Your task to perform on an android device: turn on the 24-hour format for clock Image 0: 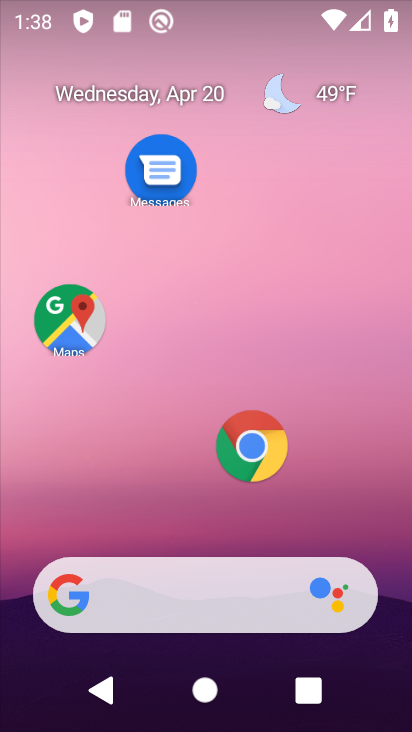
Step 0: drag from (190, 539) to (211, 133)
Your task to perform on an android device: turn on the 24-hour format for clock Image 1: 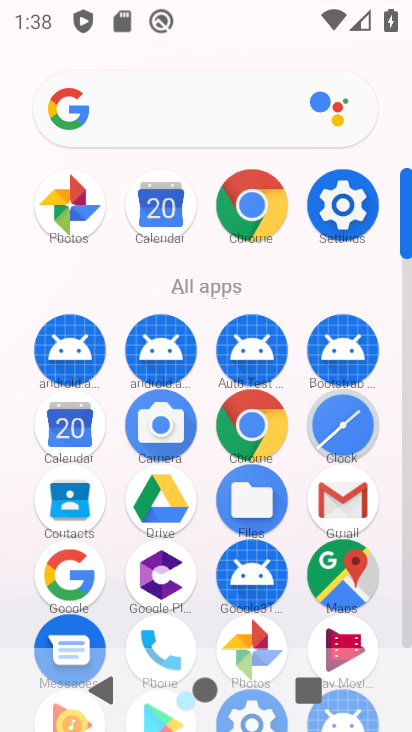
Step 1: click (340, 418)
Your task to perform on an android device: turn on the 24-hour format for clock Image 2: 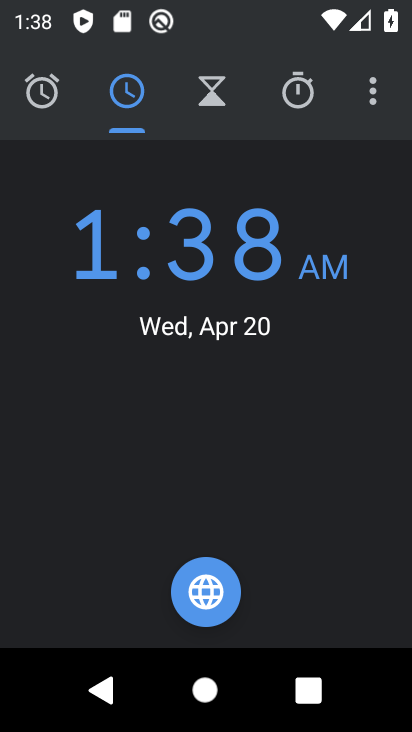
Step 2: click (369, 95)
Your task to perform on an android device: turn on the 24-hour format for clock Image 3: 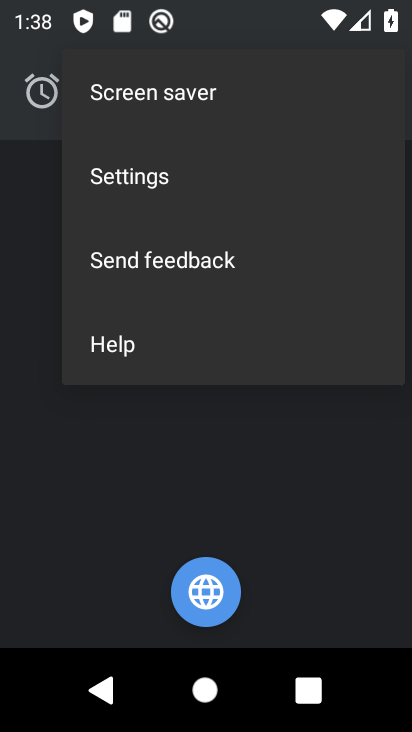
Step 3: click (189, 179)
Your task to perform on an android device: turn on the 24-hour format for clock Image 4: 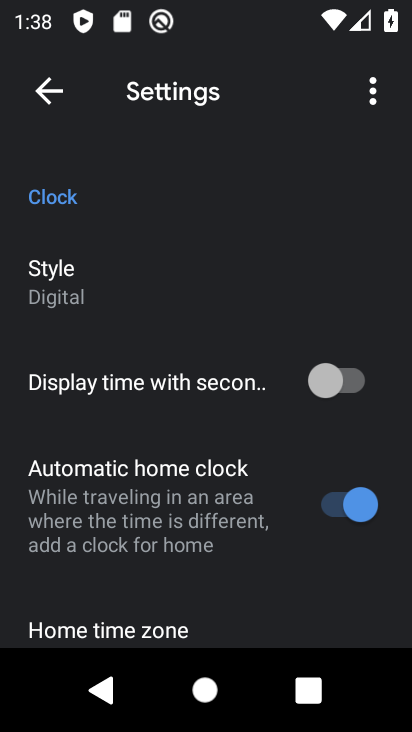
Step 4: drag from (182, 509) to (194, 170)
Your task to perform on an android device: turn on the 24-hour format for clock Image 5: 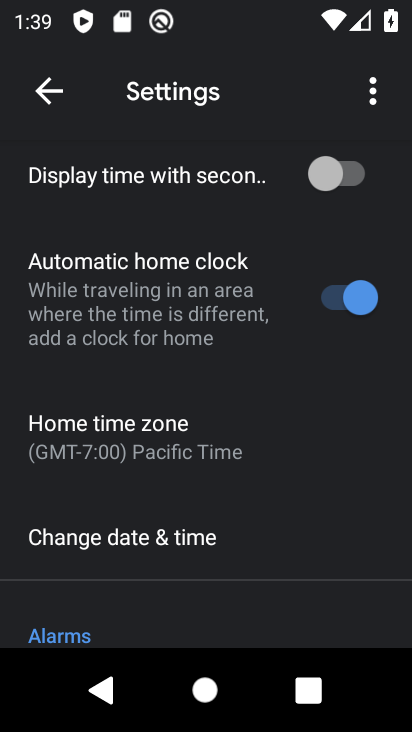
Step 5: drag from (191, 535) to (162, 241)
Your task to perform on an android device: turn on the 24-hour format for clock Image 6: 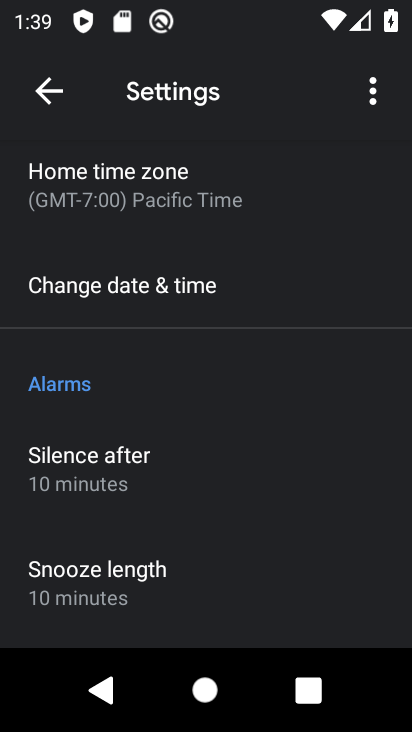
Step 6: click (194, 274)
Your task to perform on an android device: turn on the 24-hour format for clock Image 7: 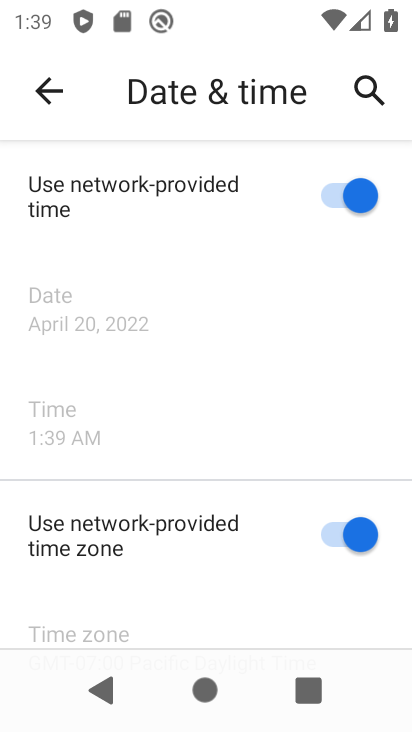
Step 7: drag from (208, 410) to (189, 132)
Your task to perform on an android device: turn on the 24-hour format for clock Image 8: 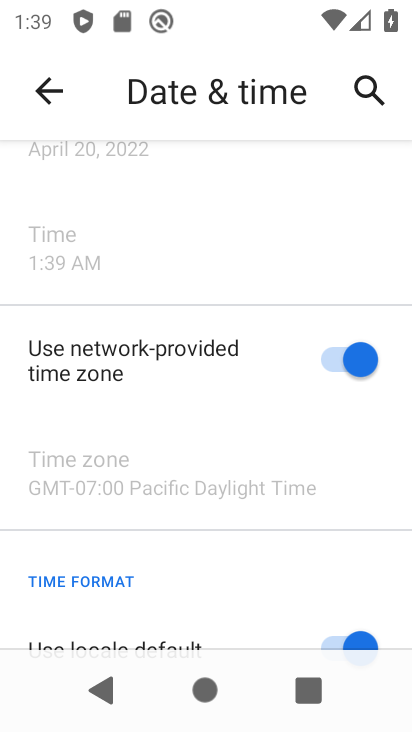
Step 8: drag from (223, 593) to (209, 189)
Your task to perform on an android device: turn on the 24-hour format for clock Image 9: 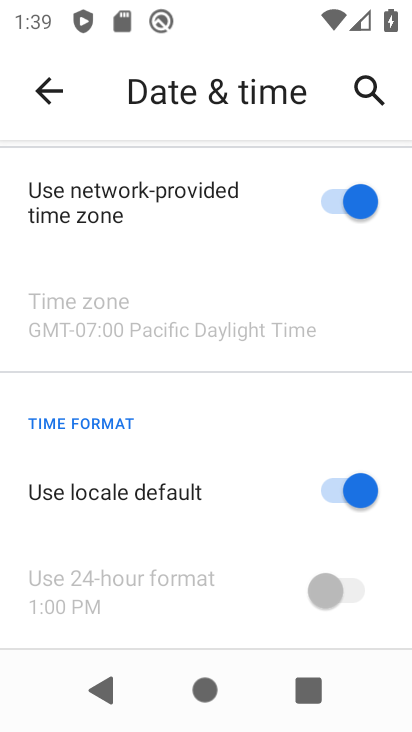
Step 9: drag from (221, 513) to (202, 174)
Your task to perform on an android device: turn on the 24-hour format for clock Image 10: 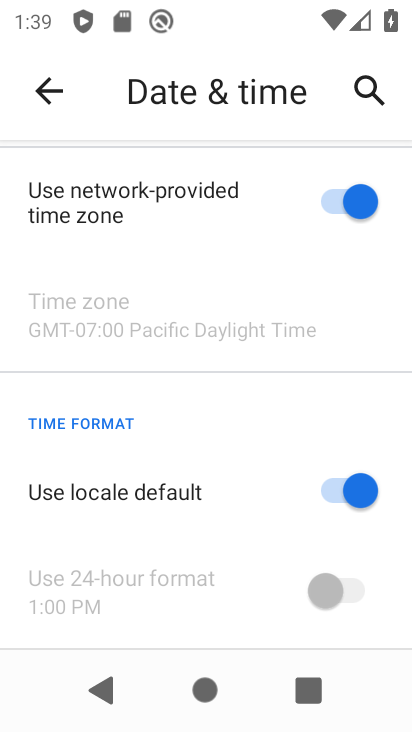
Step 10: click (345, 483)
Your task to perform on an android device: turn on the 24-hour format for clock Image 11: 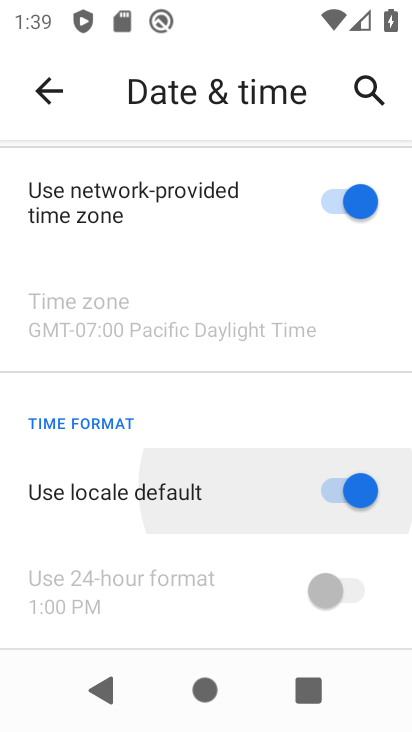
Step 11: click (339, 586)
Your task to perform on an android device: turn on the 24-hour format for clock Image 12: 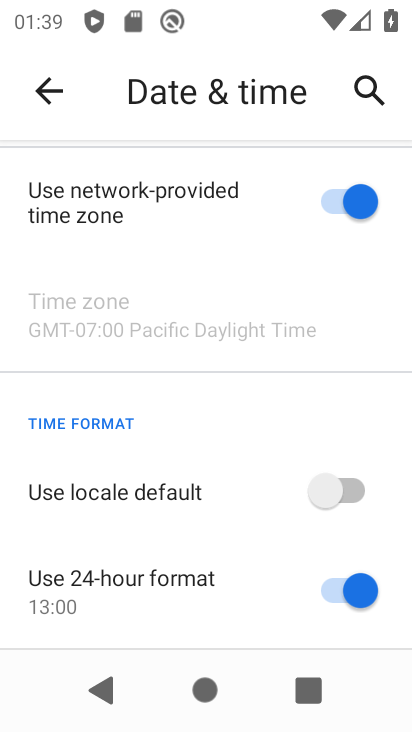
Step 12: task complete